Your task to perform on an android device: Go to notification settings Image 0: 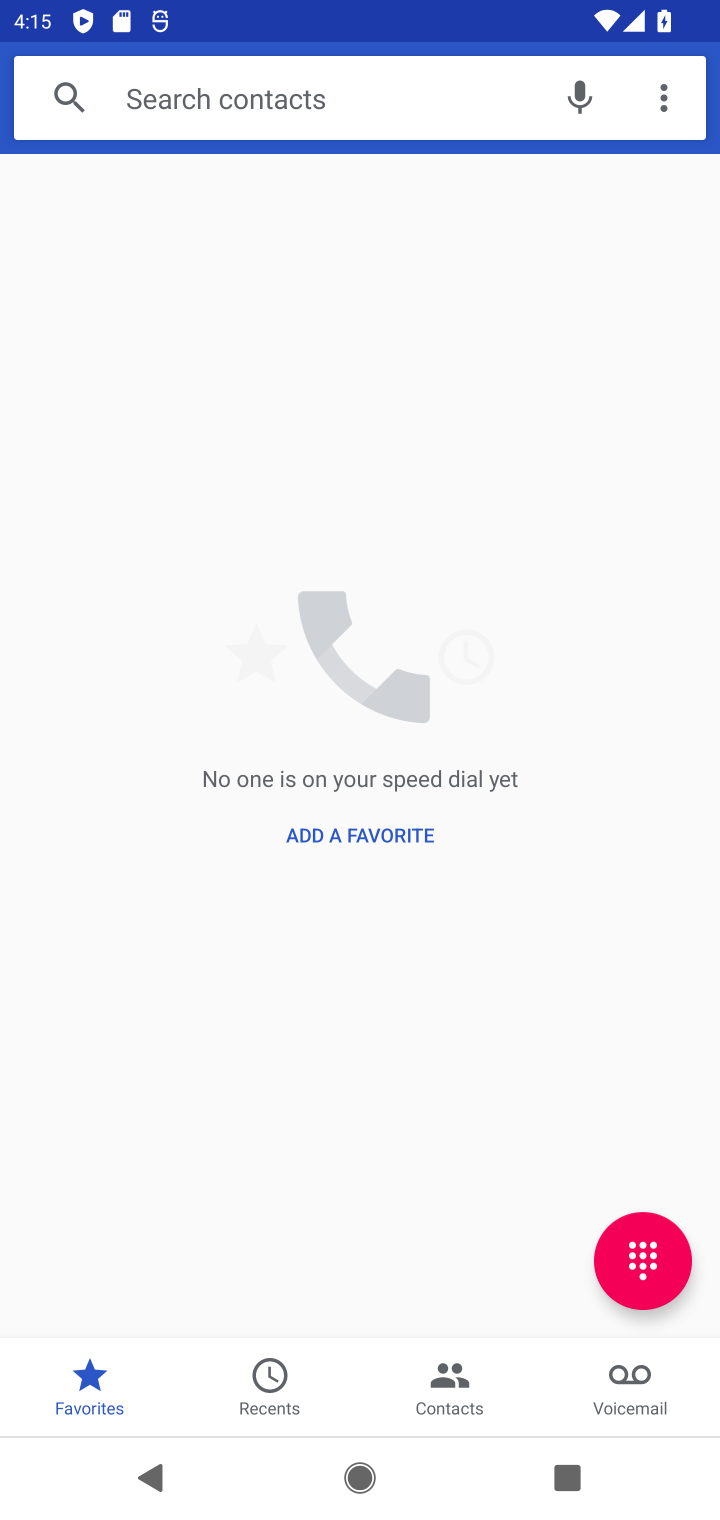
Step 0: press home button
Your task to perform on an android device: Go to notification settings Image 1: 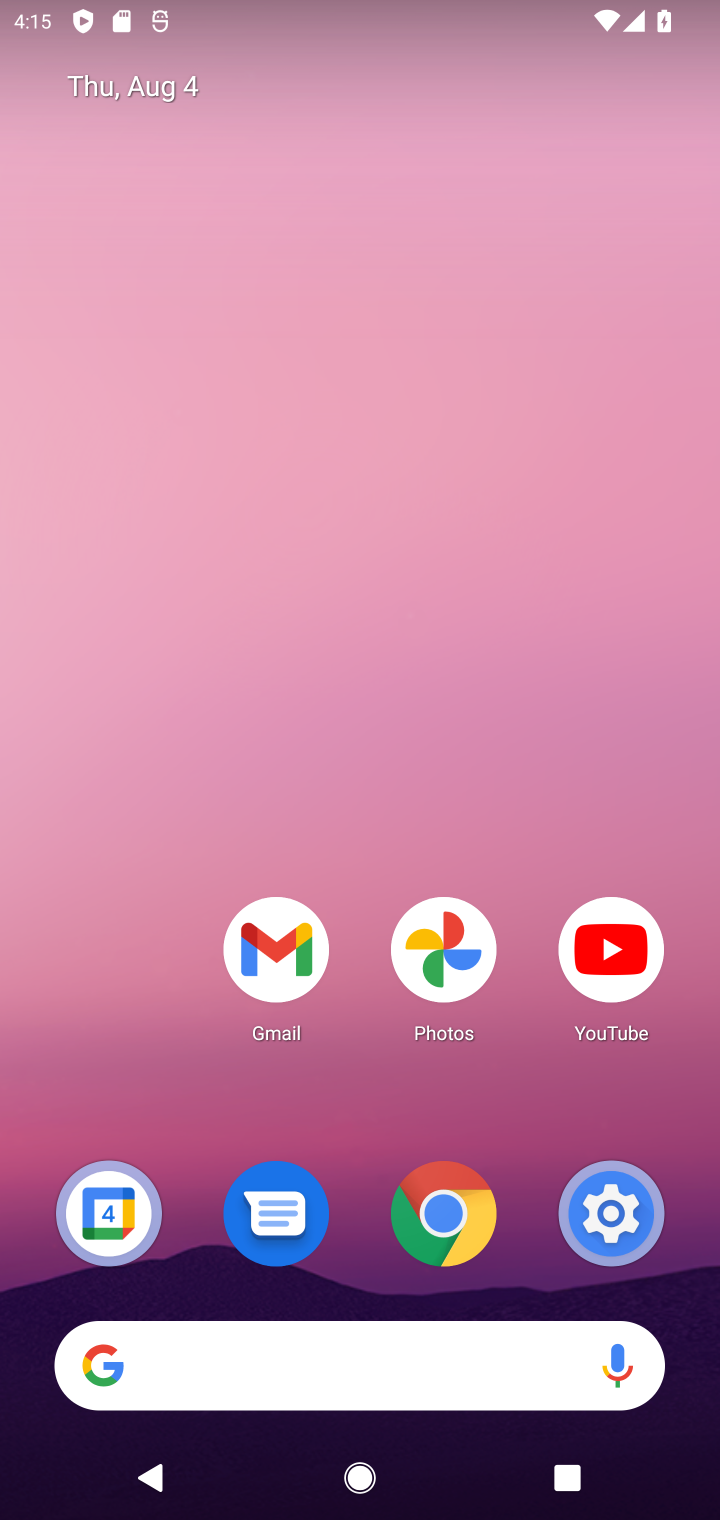
Step 1: drag from (150, 1112) to (161, 224)
Your task to perform on an android device: Go to notification settings Image 2: 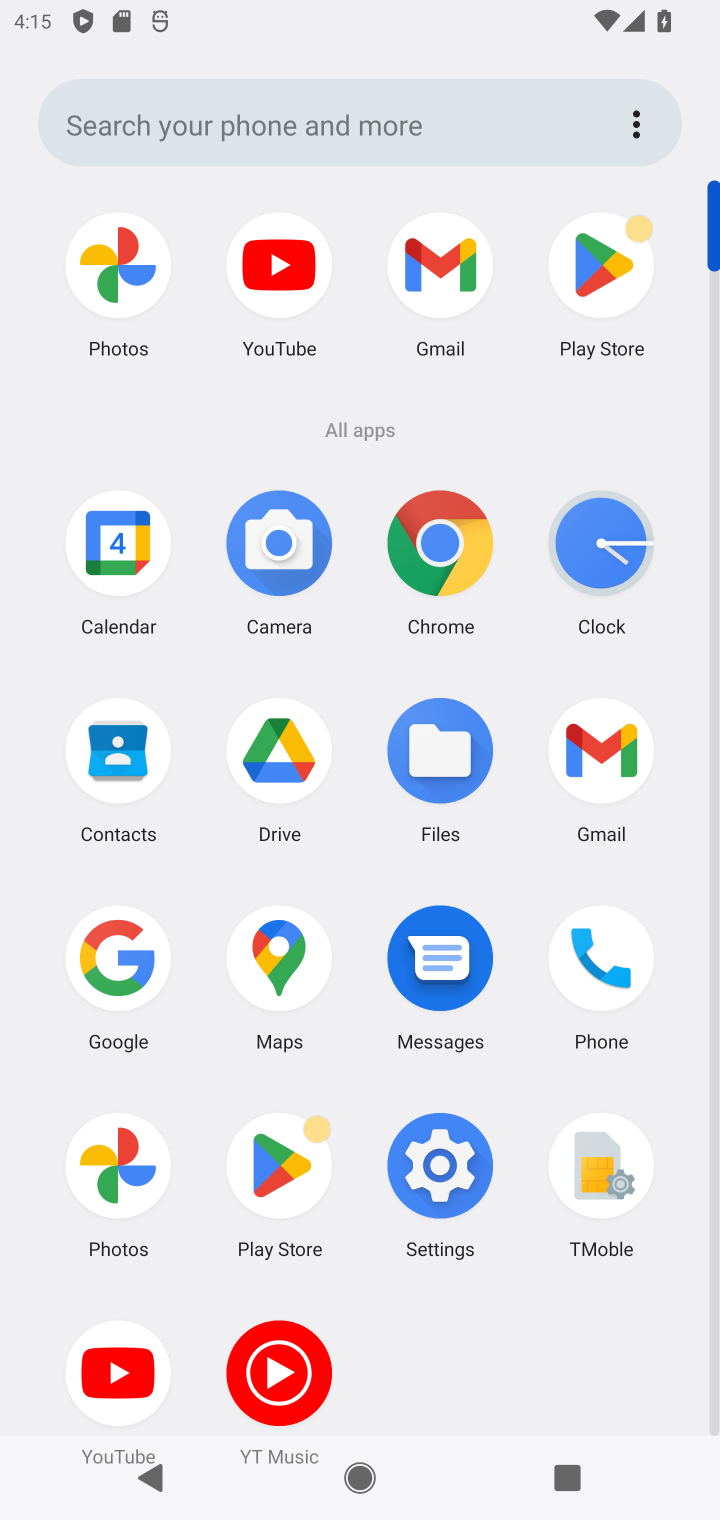
Step 2: click (456, 1178)
Your task to perform on an android device: Go to notification settings Image 3: 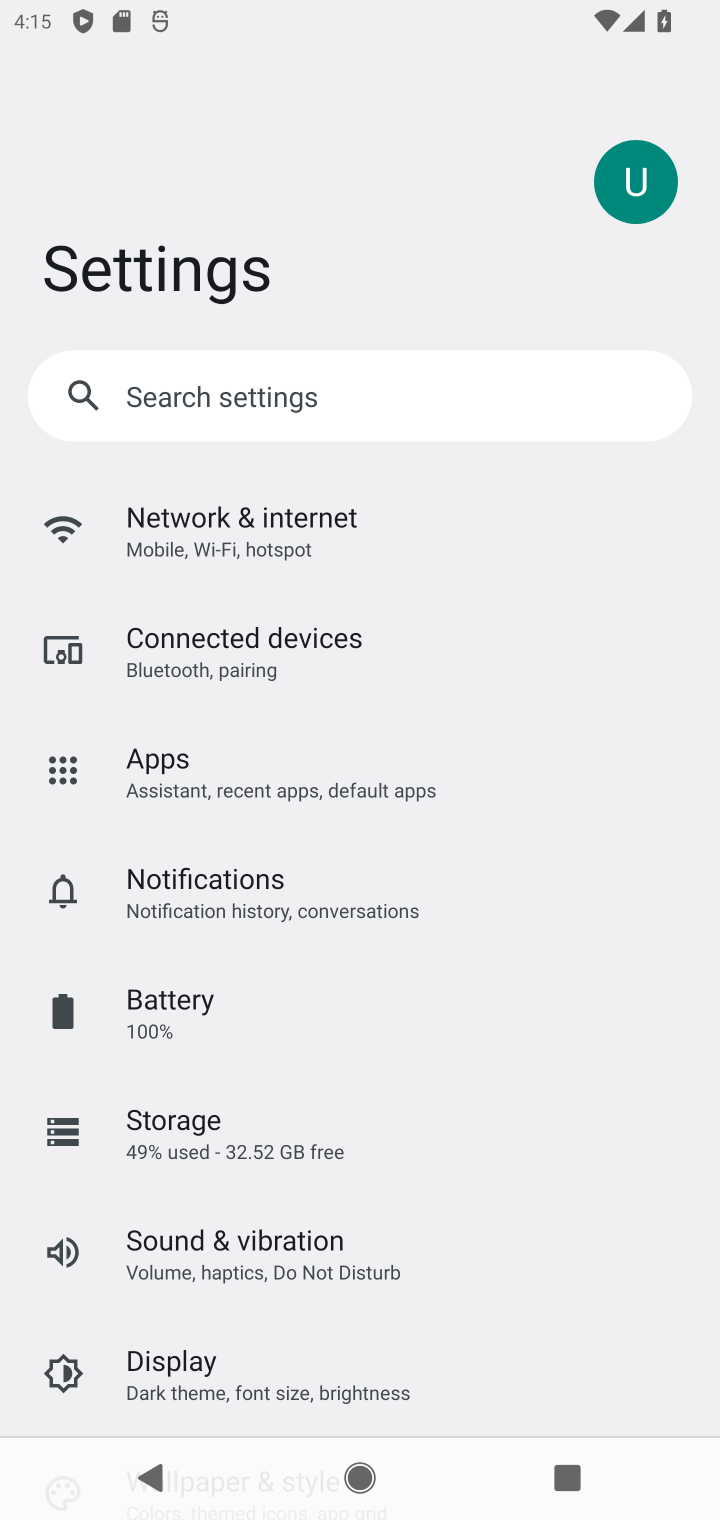
Step 3: drag from (646, 1168) to (523, 1422)
Your task to perform on an android device: Go to notification settings Image 4: 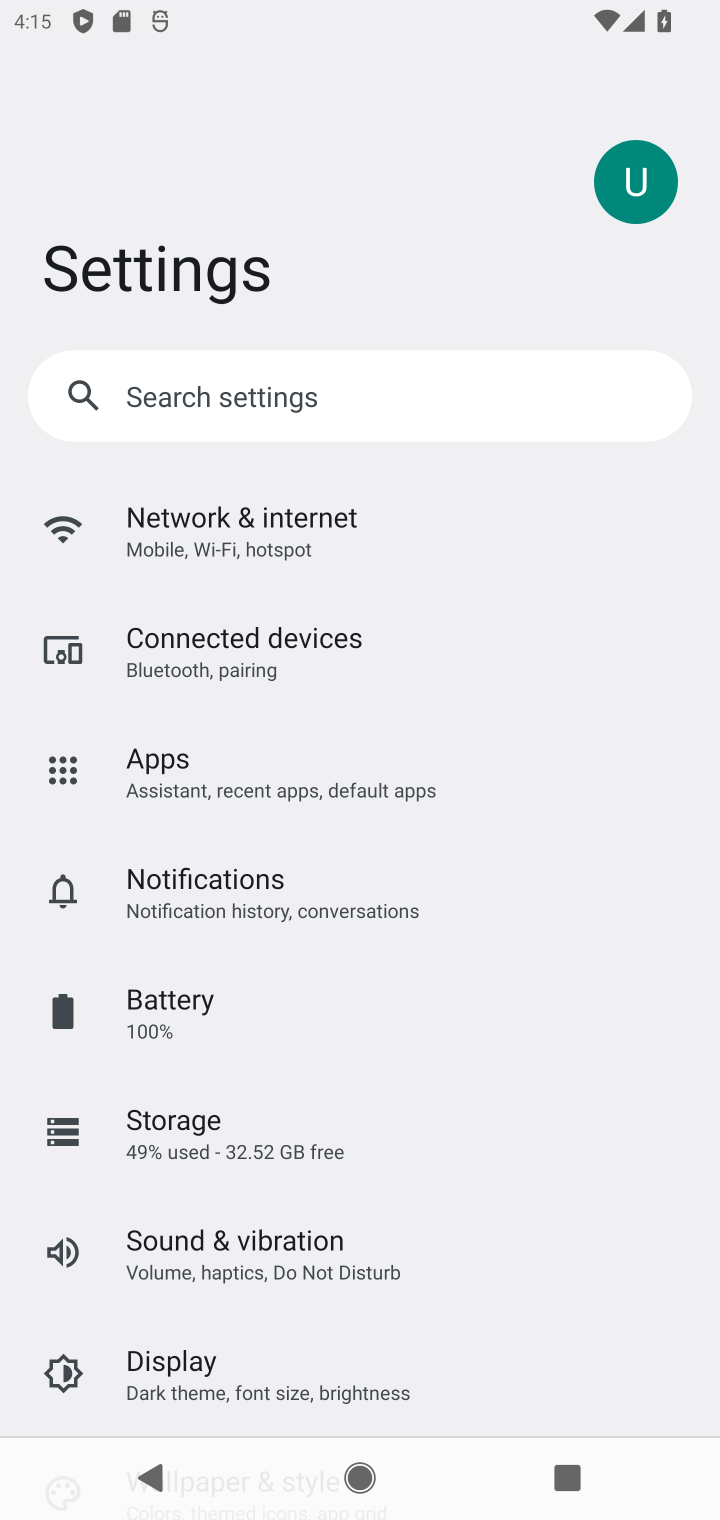
Step 4: drag from (530, 1323) to (528, 1057)
Your task to perform on an android device: Go to notification settings Image 5: 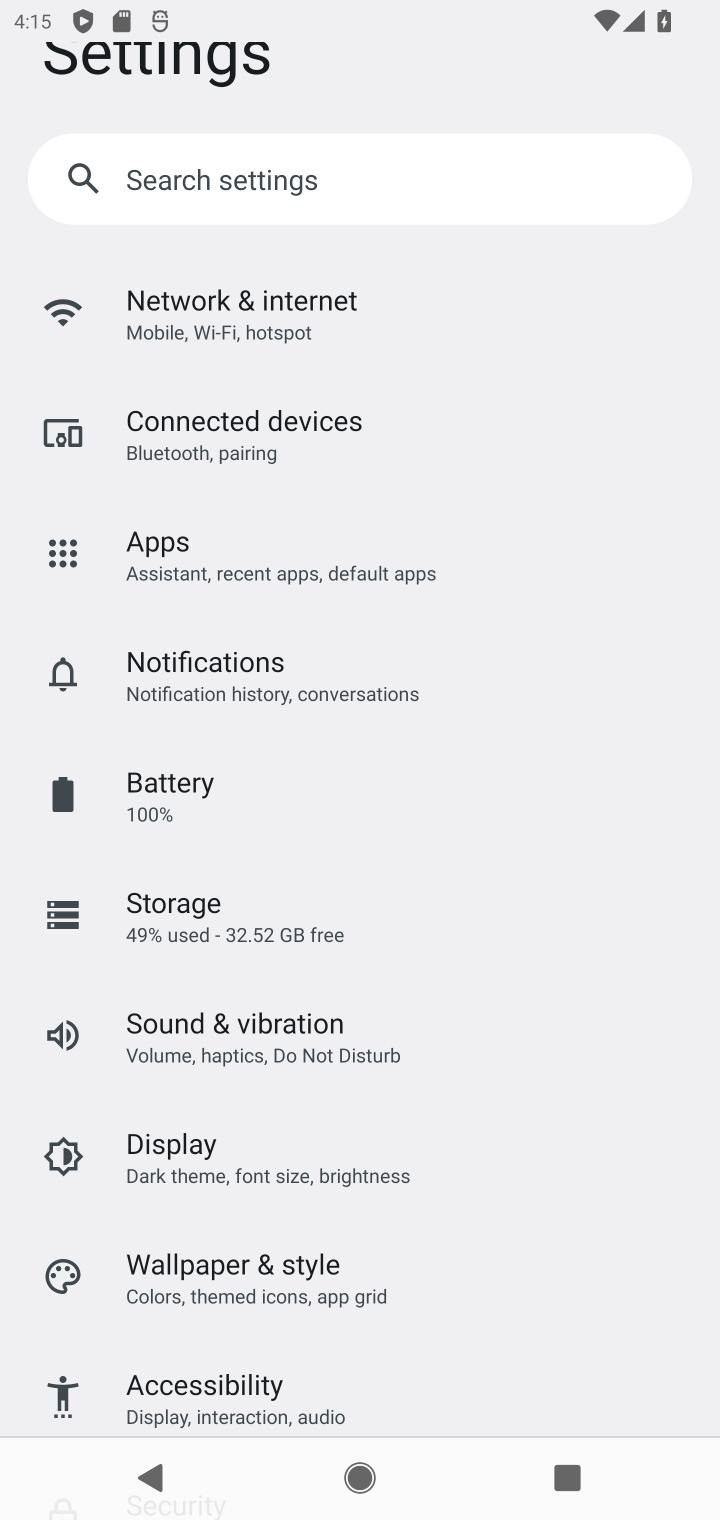
Step 5: drag from (524, 1332) to (536, 990)
Your task to perform on an android device: Go to notification settings Image 6: 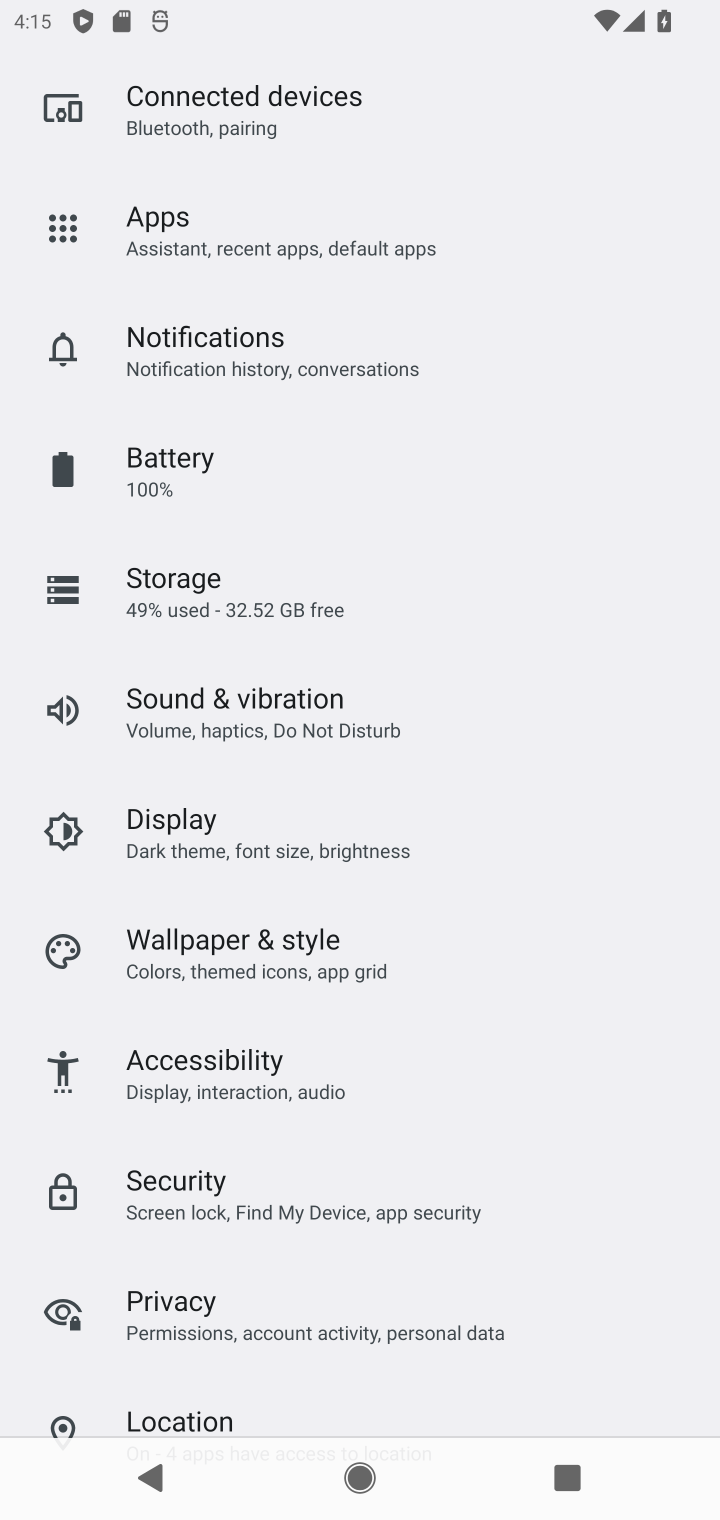
Step 6: drag from (573, 1396) to (576, 953)
Your task to perform on an android device: Go to notification settings Image 7: 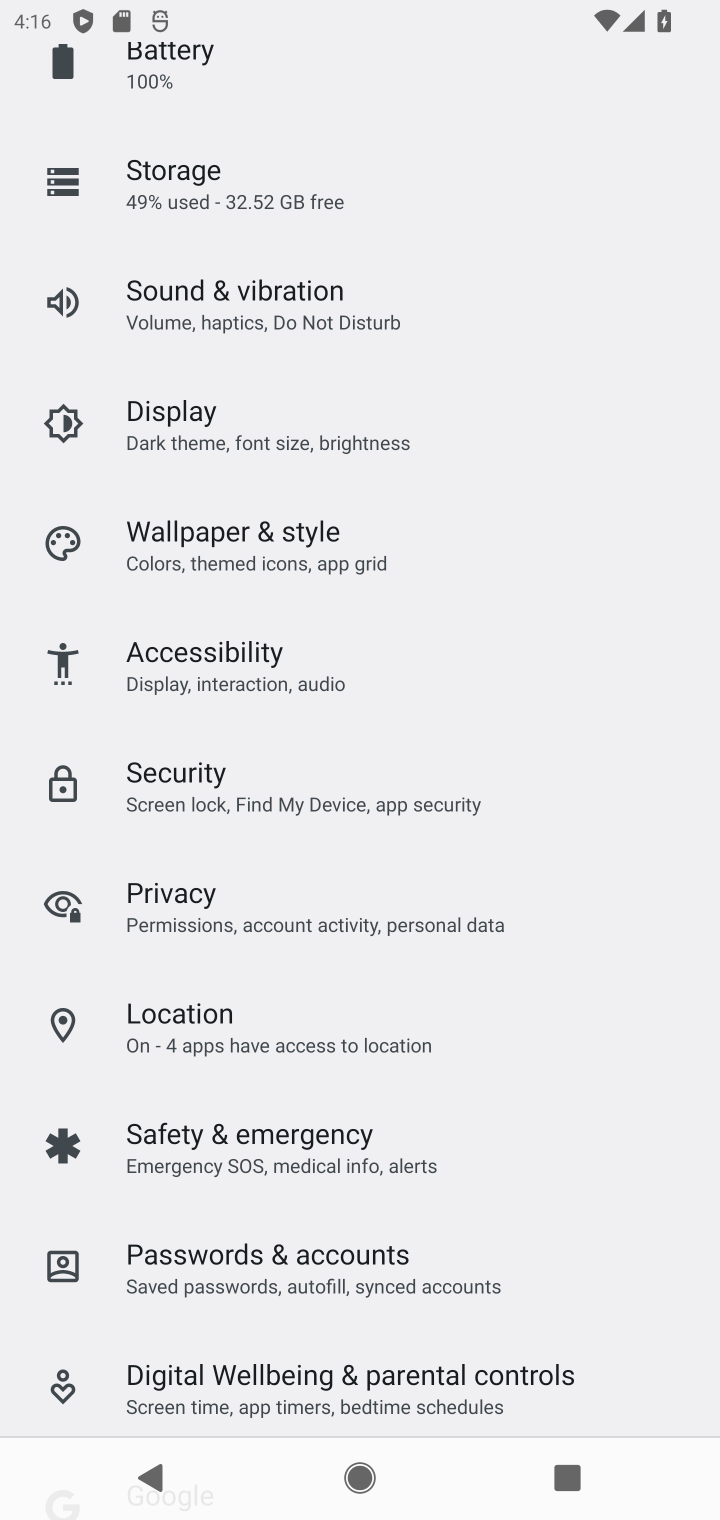
Step 7: drag from (562, 765) to (571, 1020)
Your task to perform on an android device: Go to notification settings Image 8: 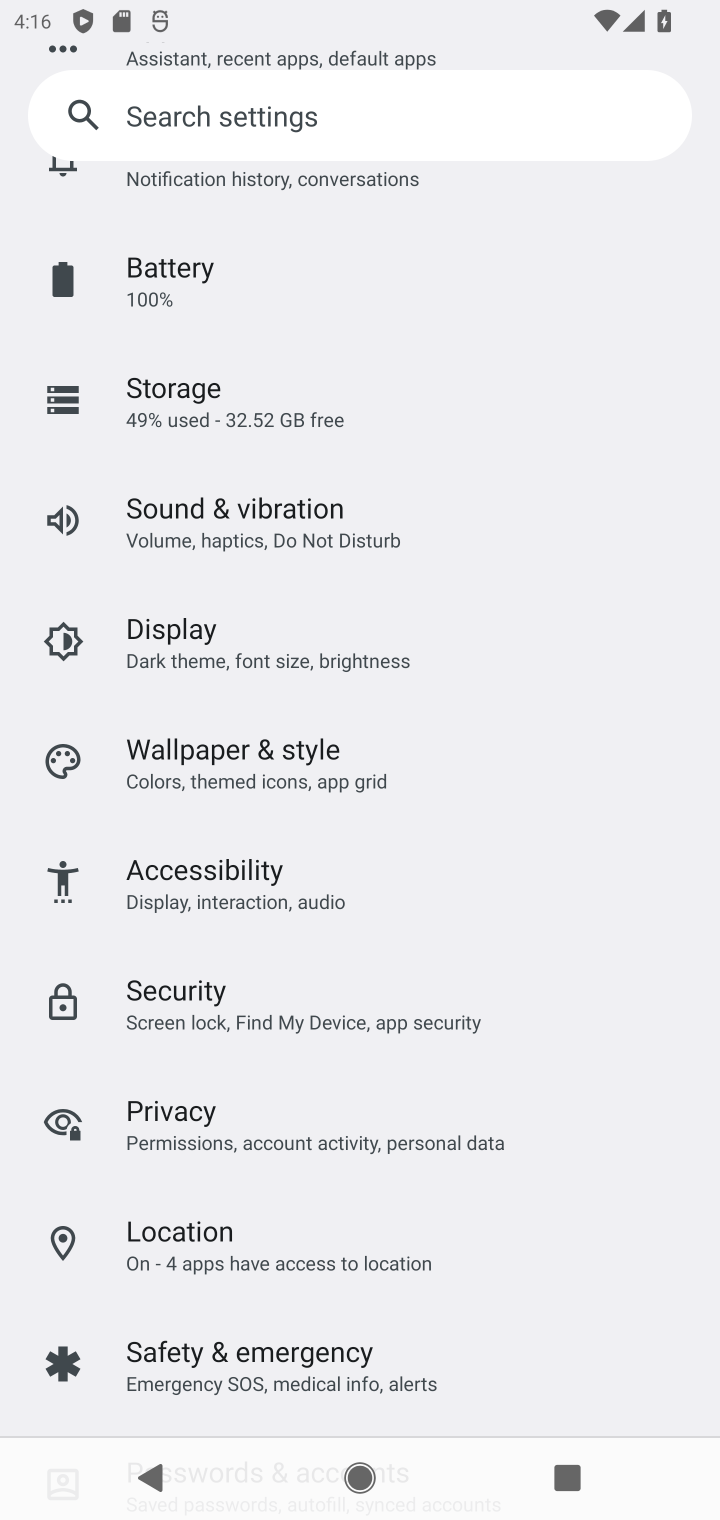
Step 8: drag from (545, 597) to (547, 875)
Your task to perform on an android device: Go to notification settings Image 9: 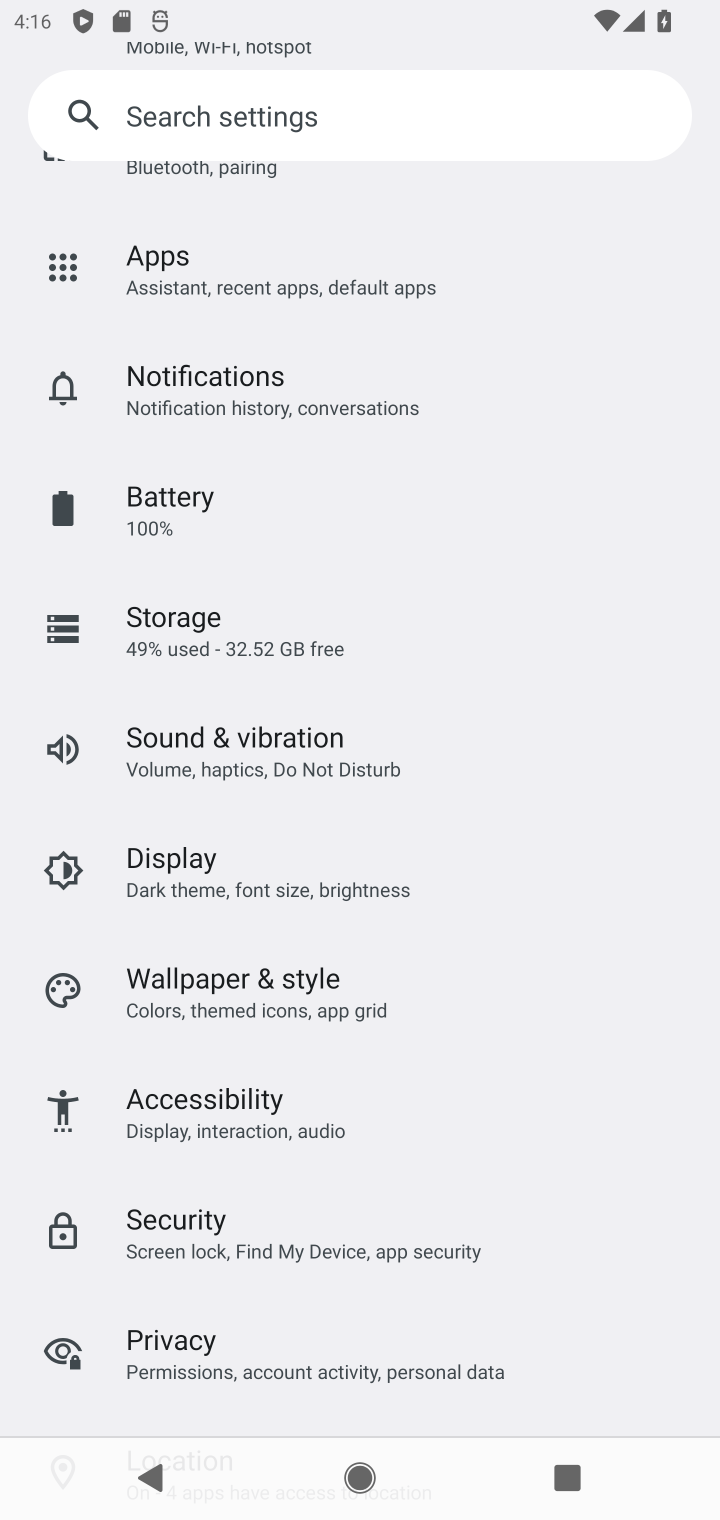
Step 9: drag from (539, 396) to (539, 909)
Your task to perform on an android device: Go to notification settings Image 10: 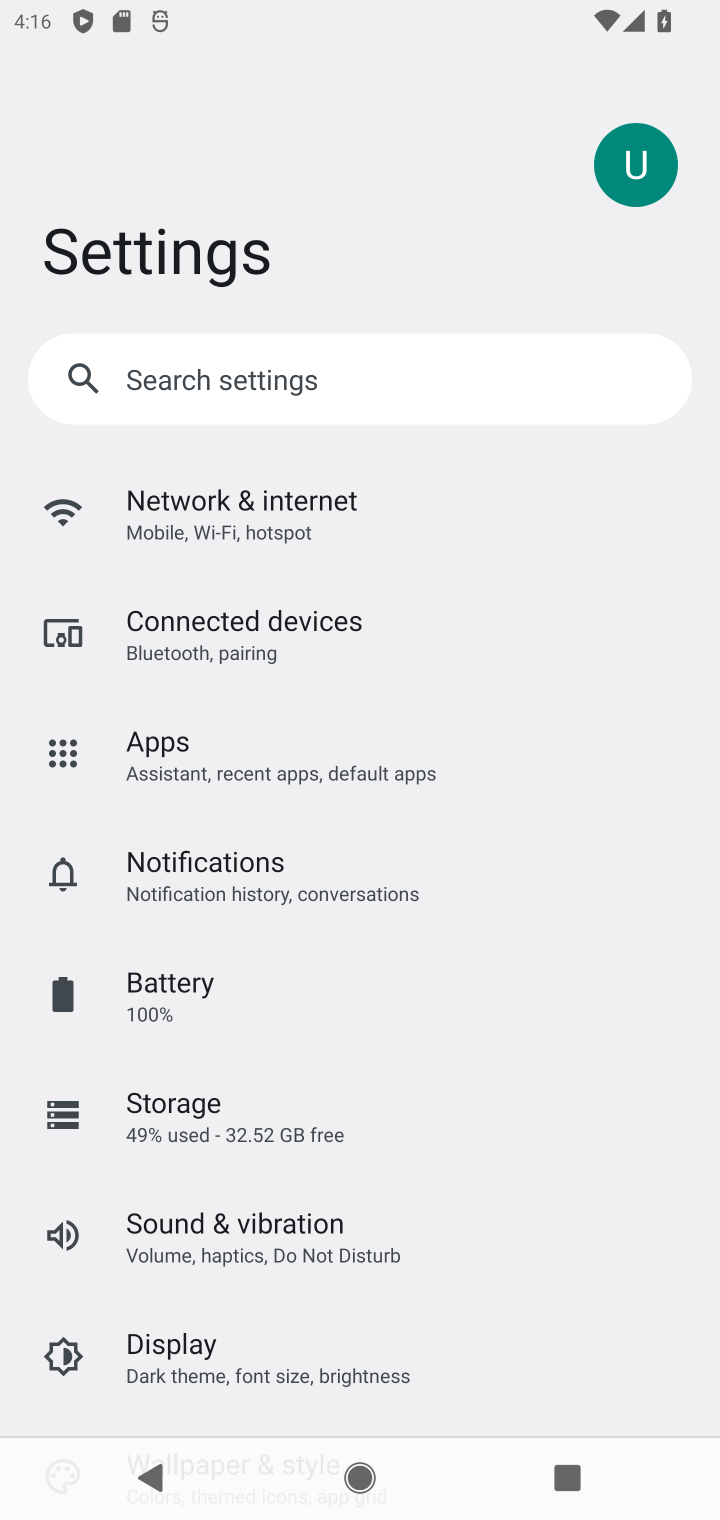
Step 10: click (433, 858)
Your task to perform on an android device: Go to notification settings Image 11: 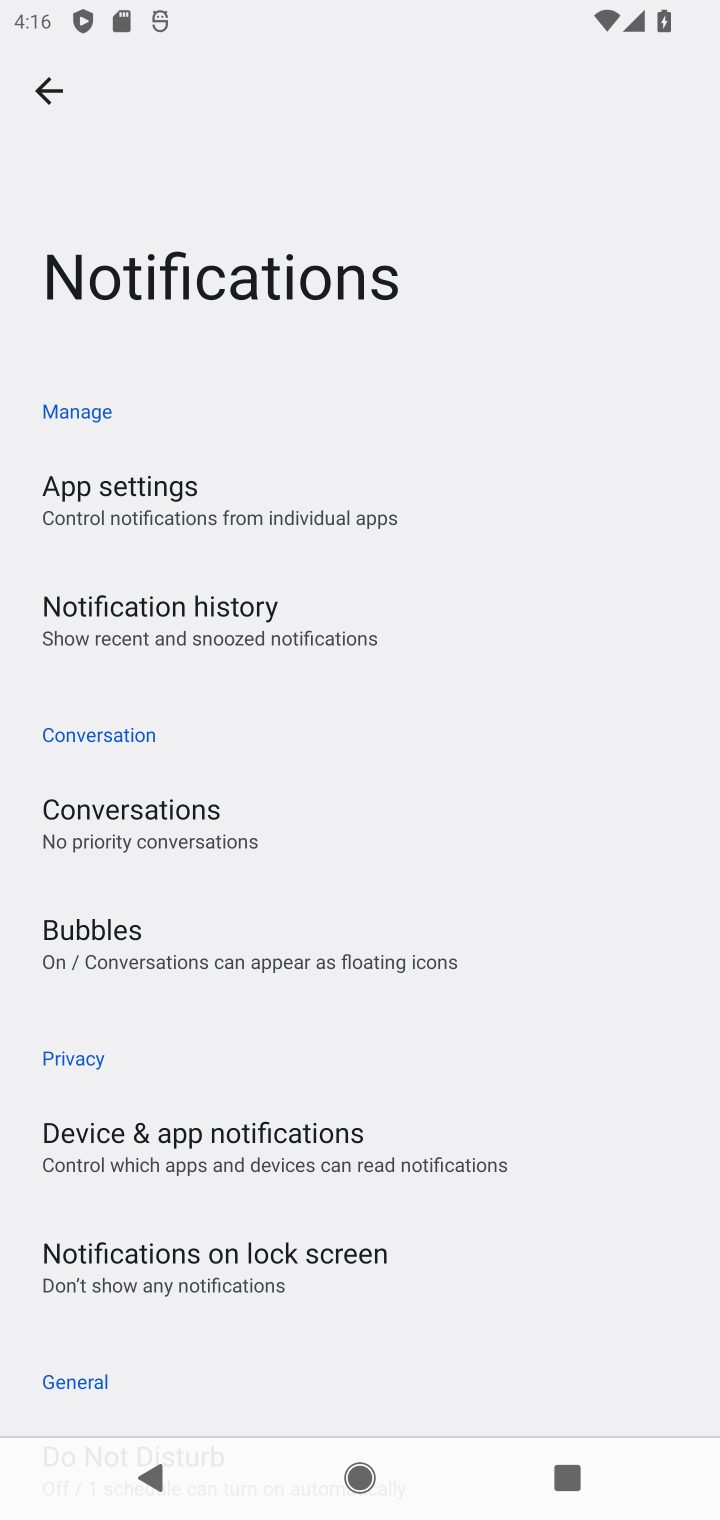
Step 11: task complete